Your task to perform on an android device: Clear the cart on costco.com. Search for "sony triple a" on costco.com, select the first entry, add it to the cart, then select checkout. Image 0: 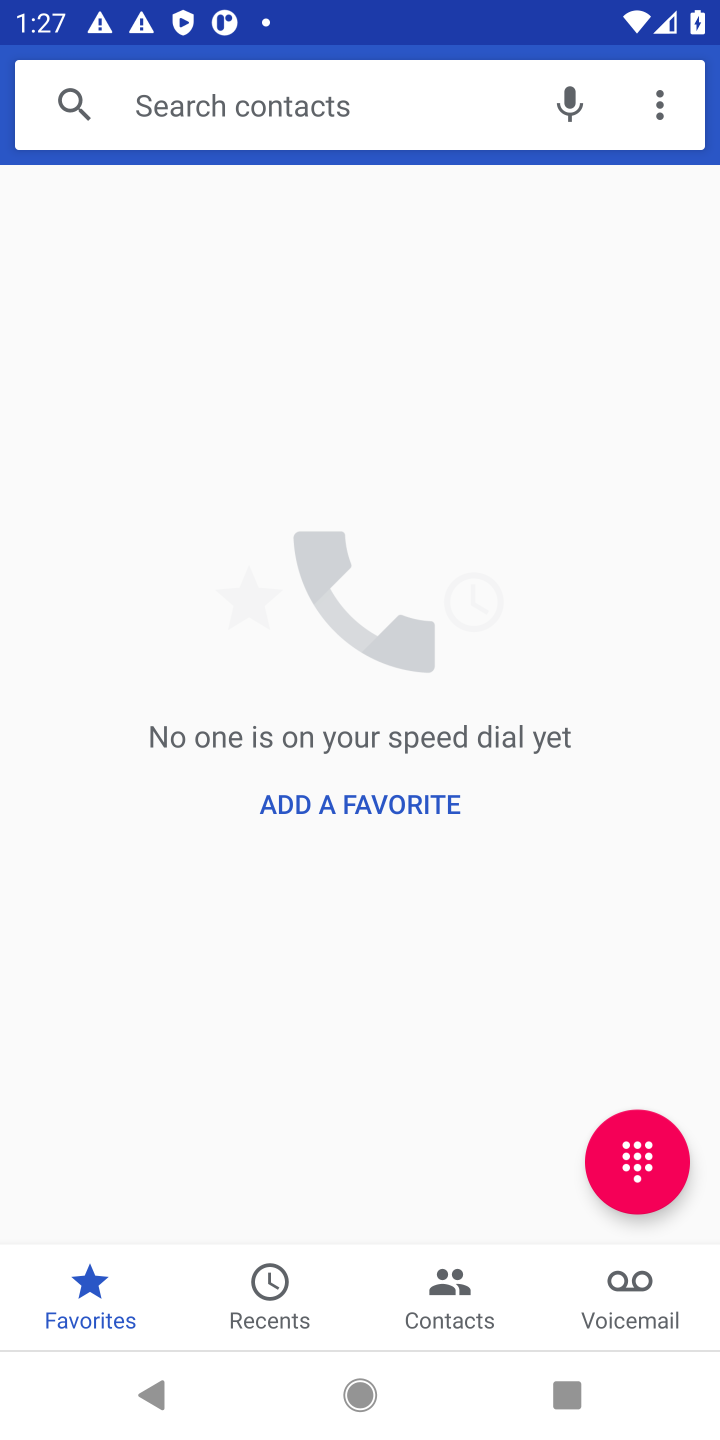
Step 0: press home button
Your task to perform on an android device: Clear the cart on costco.com. Search for "sony triple a" on costco.com, select the first entry, add it to the cart, then select checkout. Image 1: 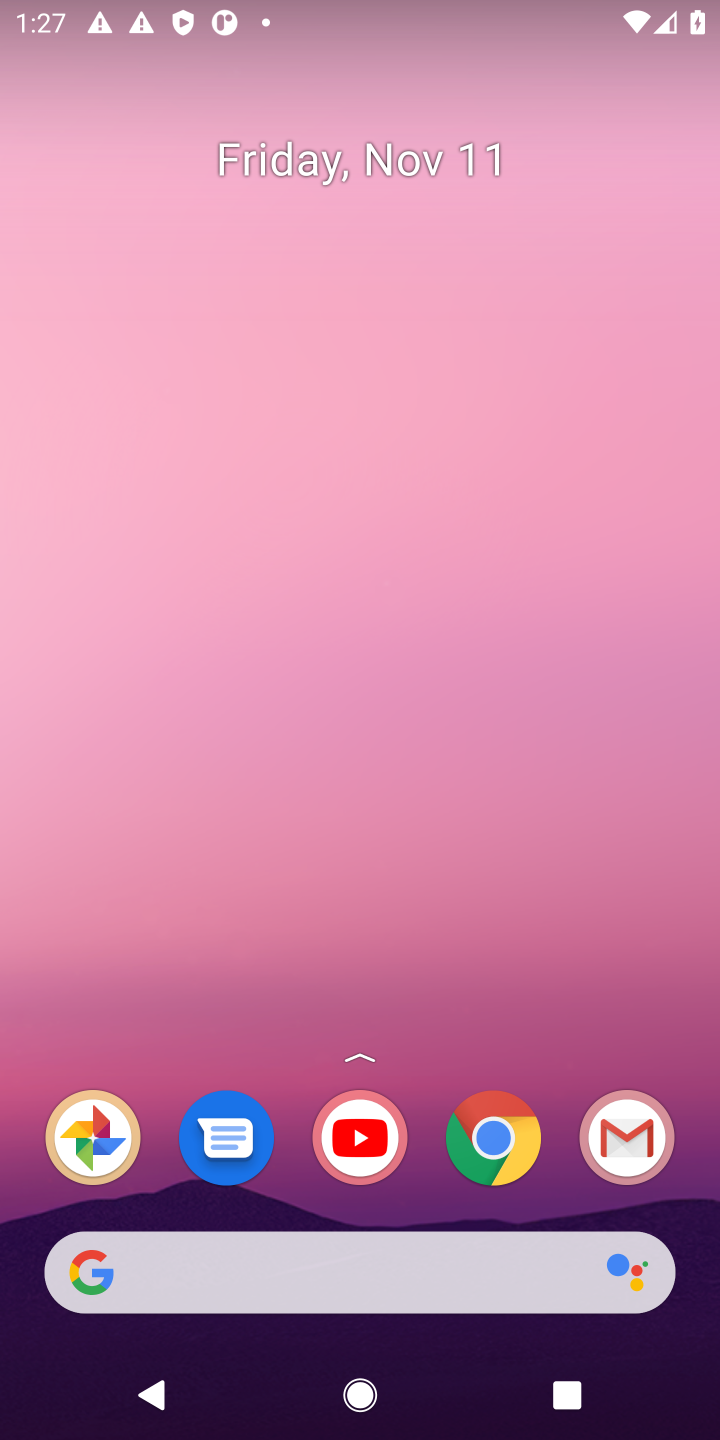
Step 1: click (491, 1143)
Your task to perform on an android device: Clear the cart on costco.com. Search for "sony triple a" on costco.com, select the first entry, add it to the cart, then select checkout. Image 2: 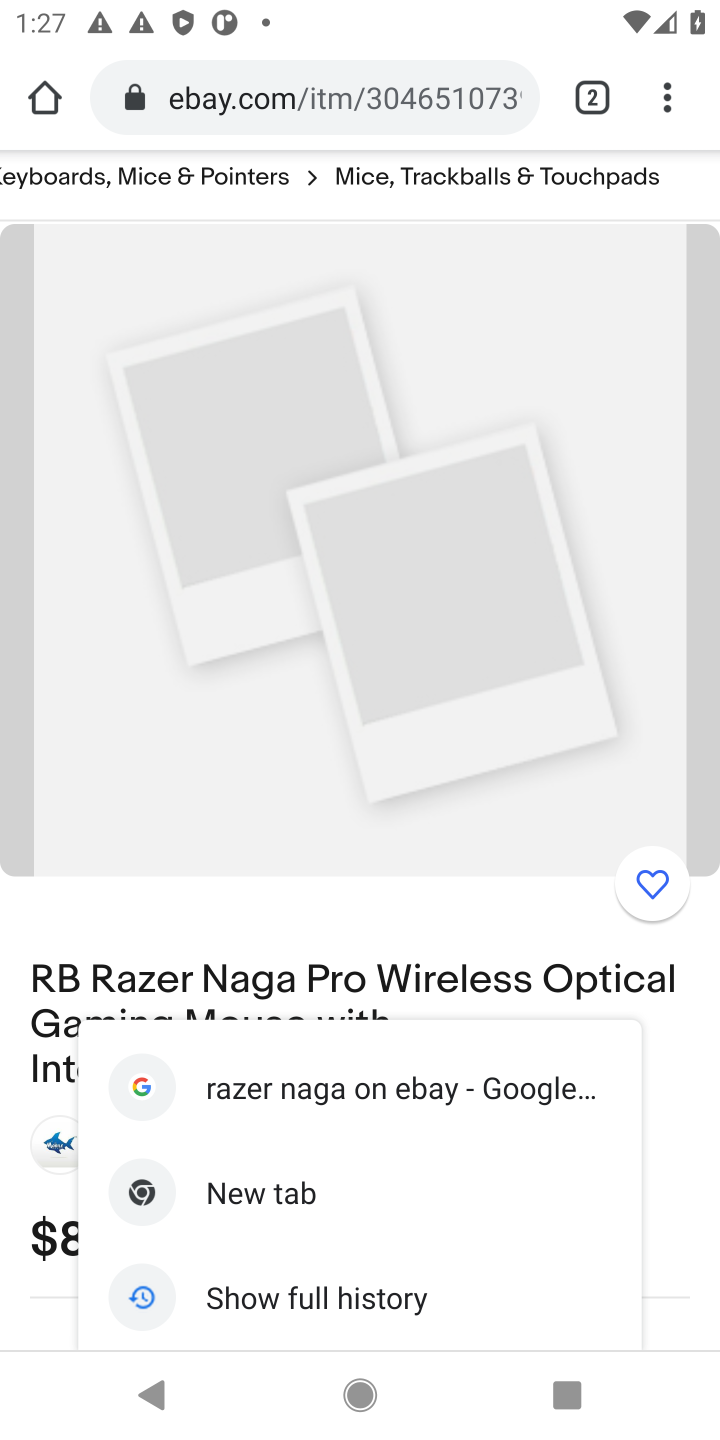
Step 2: click (590, 96)
Your task to perform on an android device: Clear the cart on costco.com. Search for "sony triple a" on costco.com, select the first entry, add it to the cart, then select checkout. Image 3: 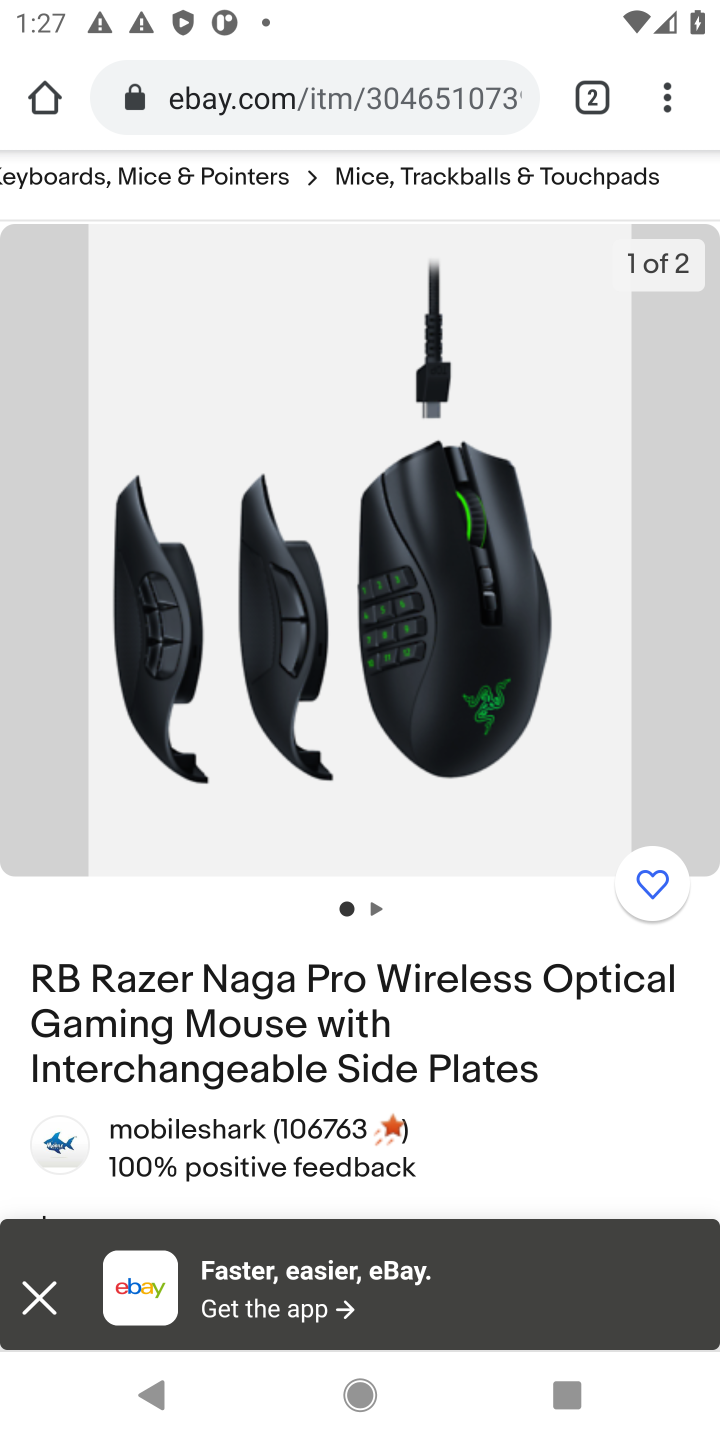
Step 3: click (602, 93)
Your task to perform on an android device: Clear the cart on costco.com. Search for "sony triple a" on costco.com, select the first entry, add it to the cart, then select checkout. Image 4: 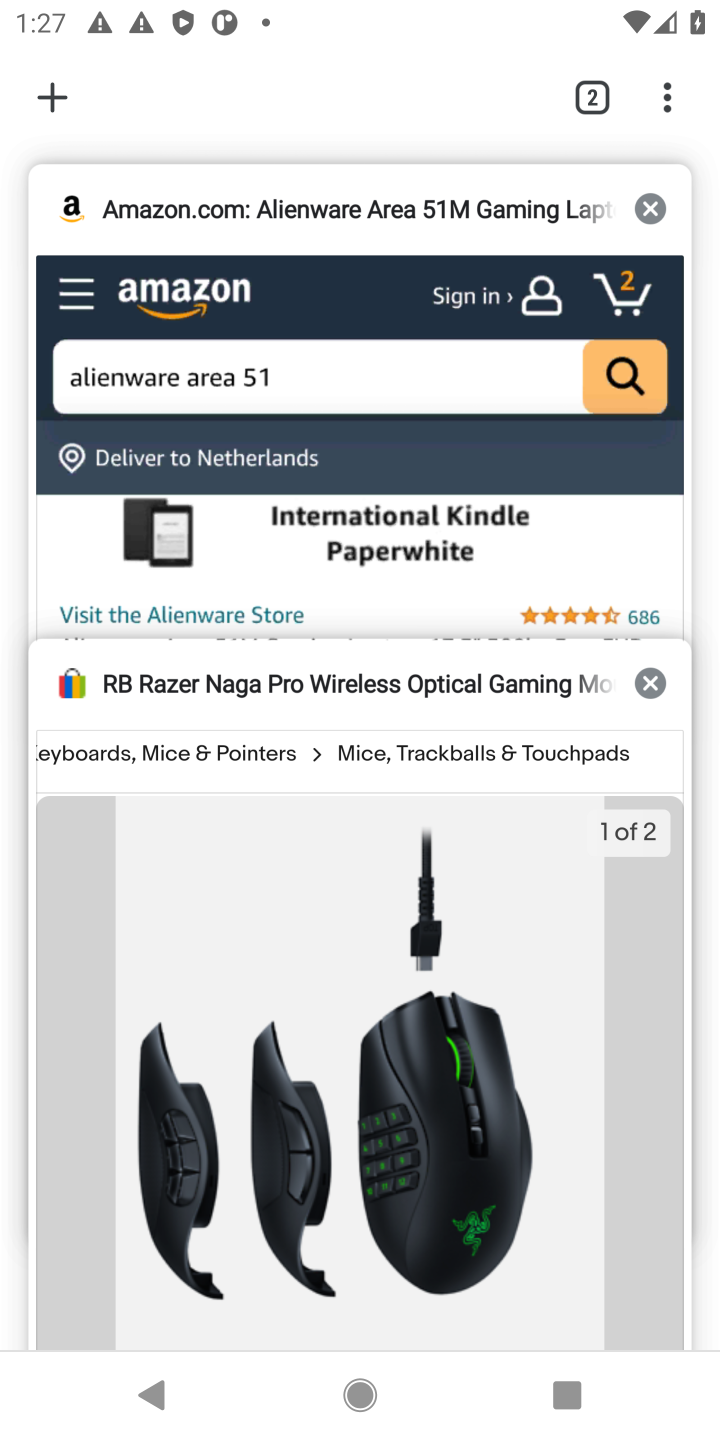
Step 4: click (49, 96)
Your task to perform on an android device: Clear the cart on costco.com. Search for "sony triple a" on costco.com, select the first entry, add it to the cart, then select checkout. Image 5: 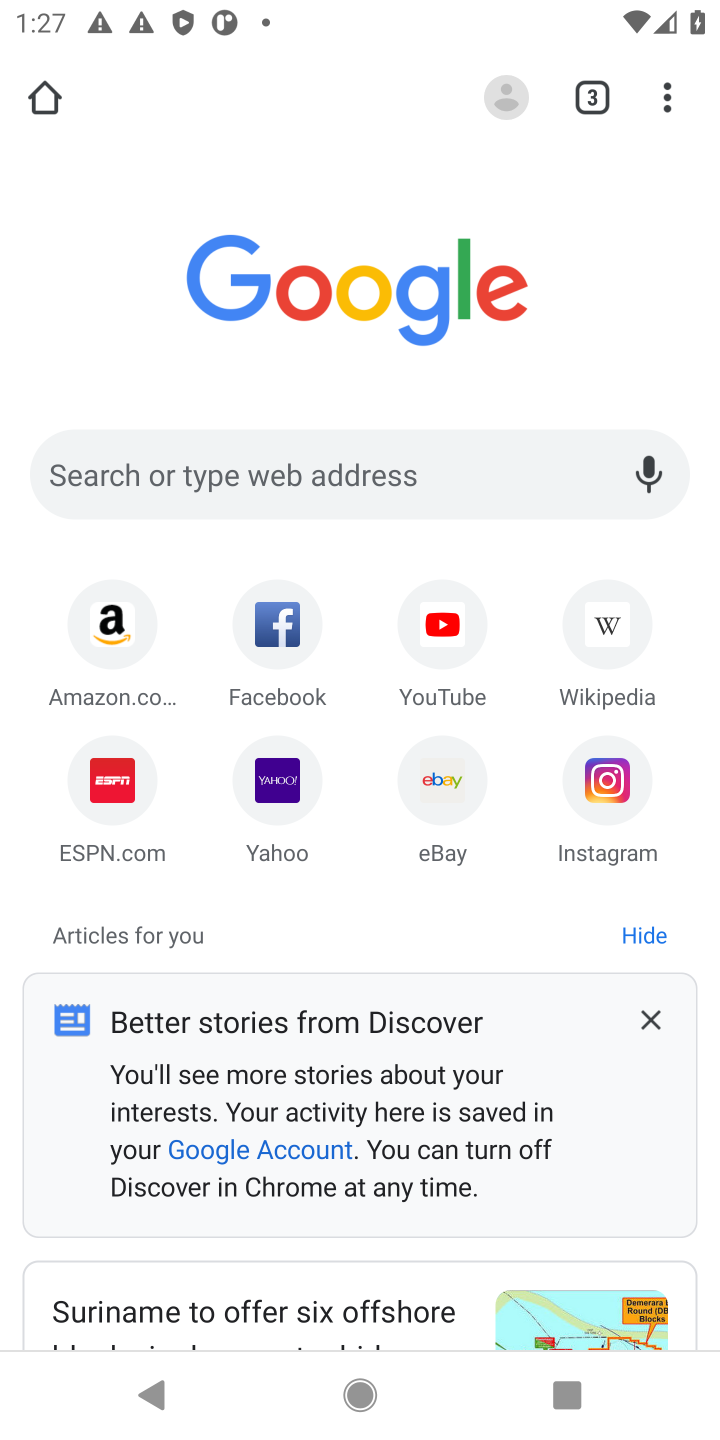
Step 5: click (386, 457)
Your task to perform on an android device: Clear the cart on costco.com. Search for "sony triple a" on costco.com, select the first entry, add it to the cart, then select checkout. Image 6: 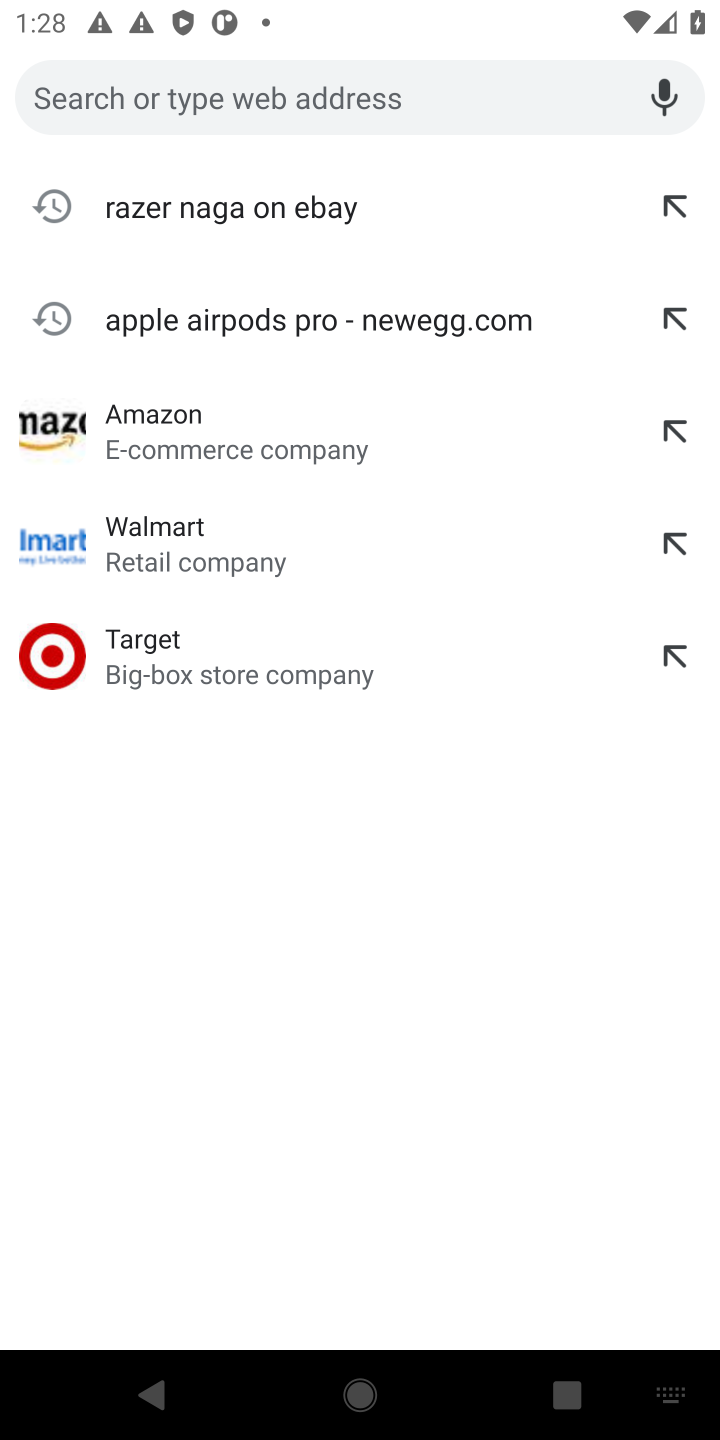
Step 6: type "sony triple a" on costco"
Your task to perform on an android device: Clear the cart on costco.com. Search for "sony triple a" on costco.com, select the first entry, add it to the cart, then select checkout. Image 7: 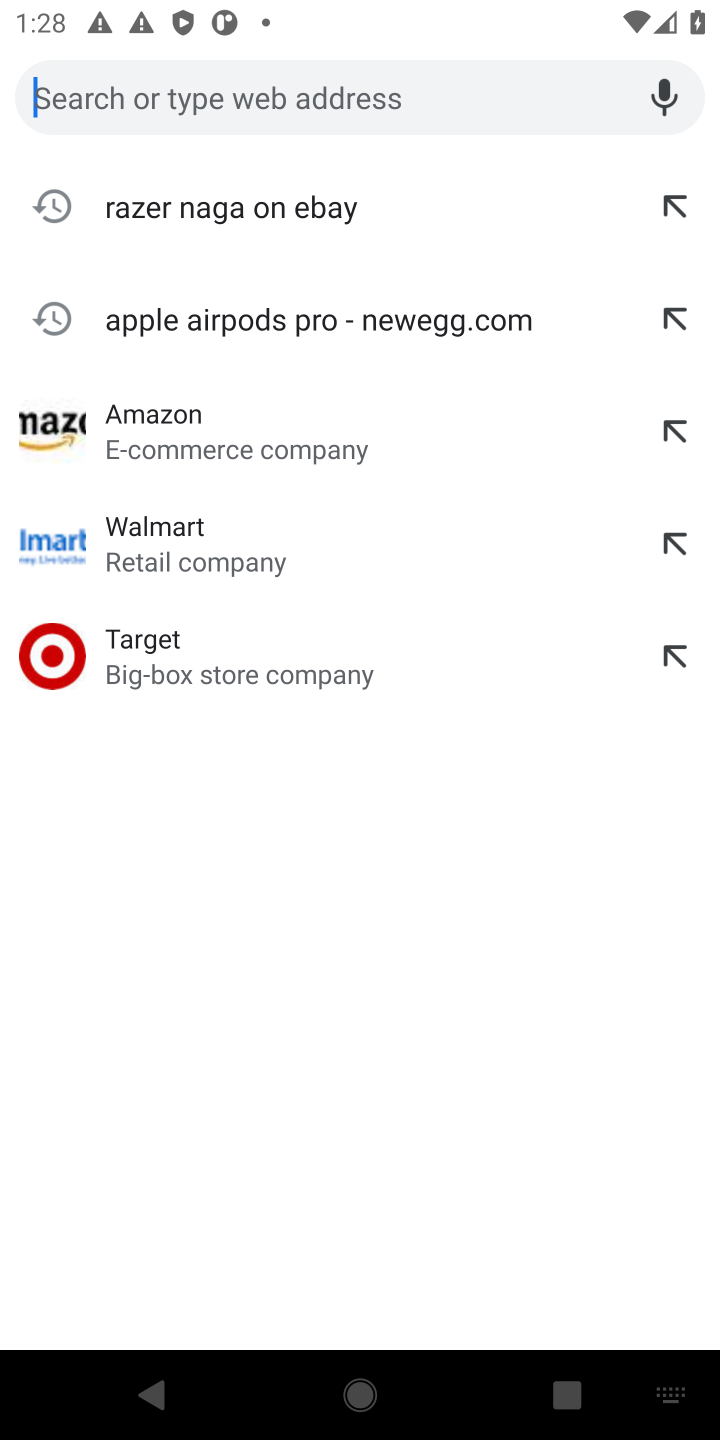
Step 7: type "sony triple a on costco"
Your task to perform on an android device: Clear the cart on costco.com. Search for "sony triple a" on costco.com, select the first entry, add it to the cart, then select checkout. Image 8: 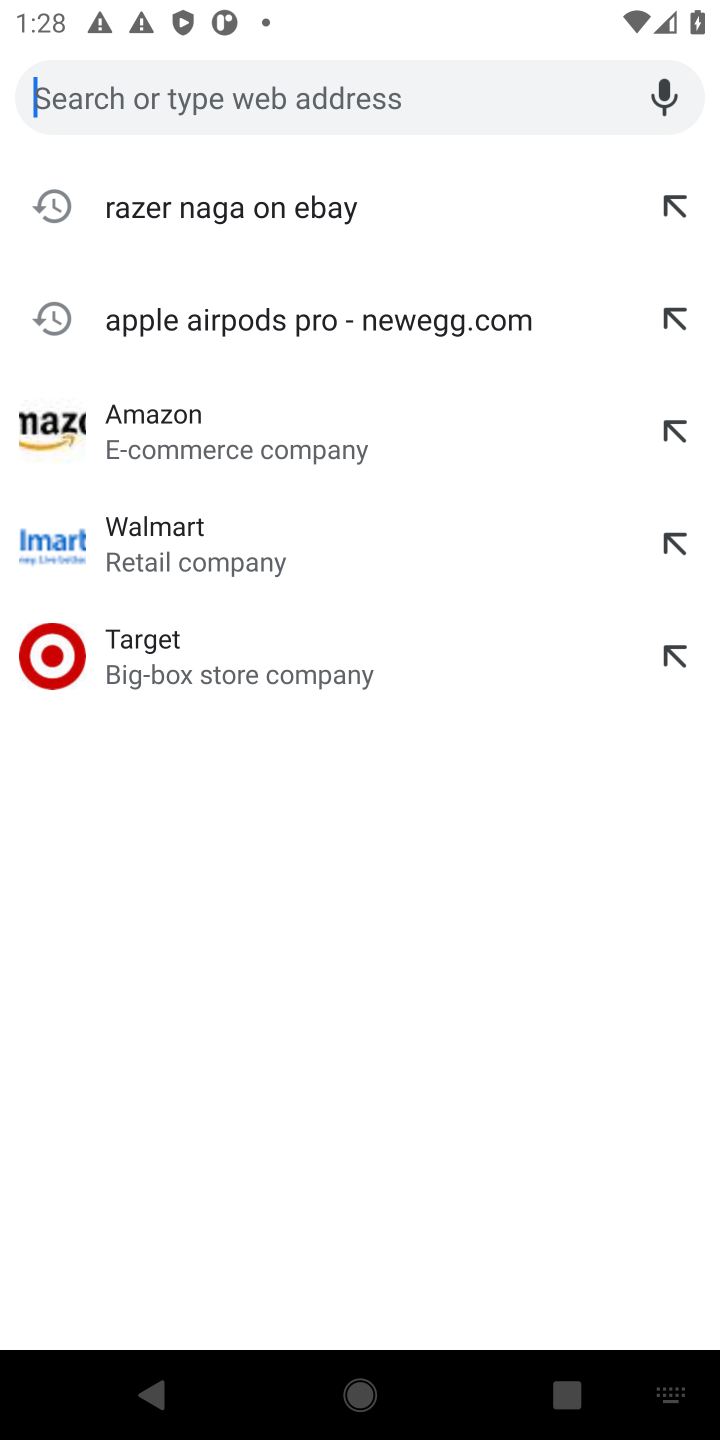
Step 8: click (113, 92)
Your task to perform on an android device: Clear the cart on costco.com. Search for "sony triple a" on costco.com, select the first entry, add it to the cart, then select checkout. Image 9: 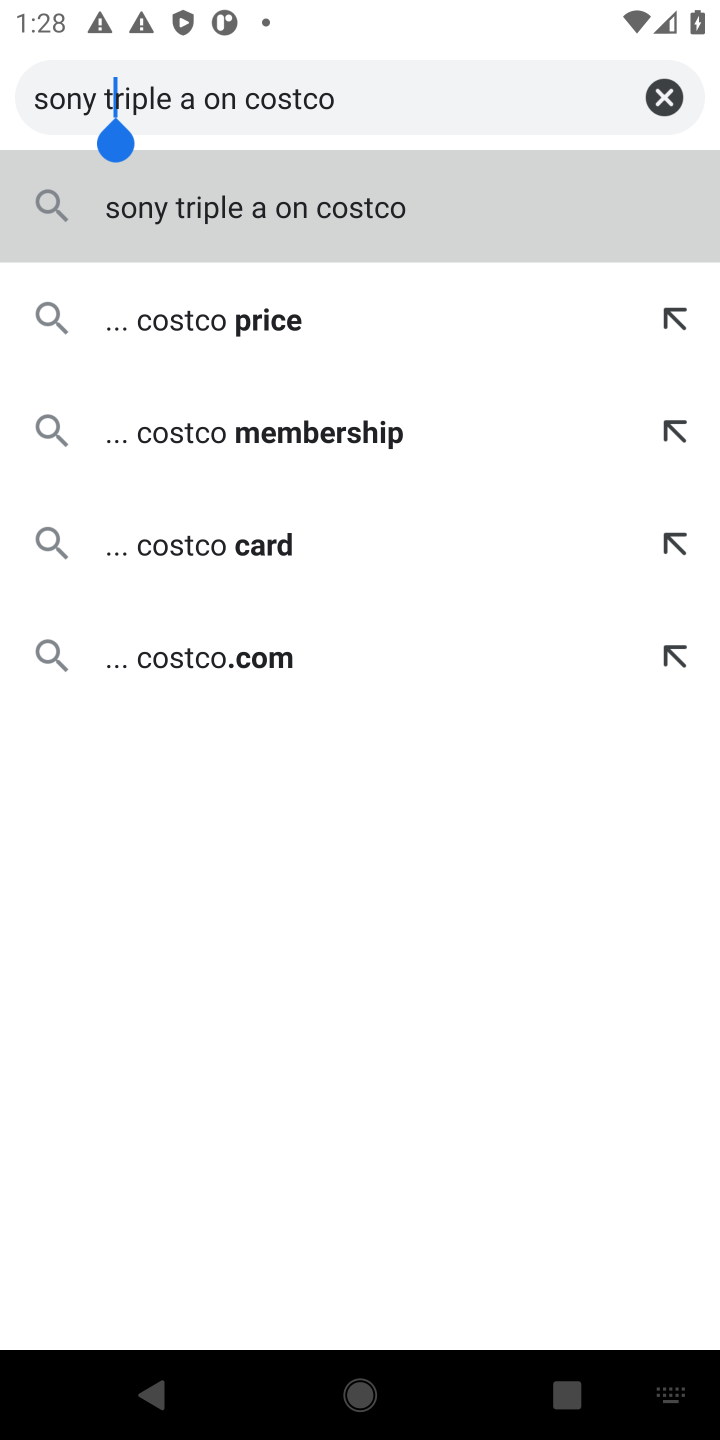
Step 9: type "sony triple a on costco"
Your task to perform on an android device: Clear the cart on costco.com. Search for "sony triple a" on costco.com, select the first entry, add it to the cart, then select checkout. Image 10: 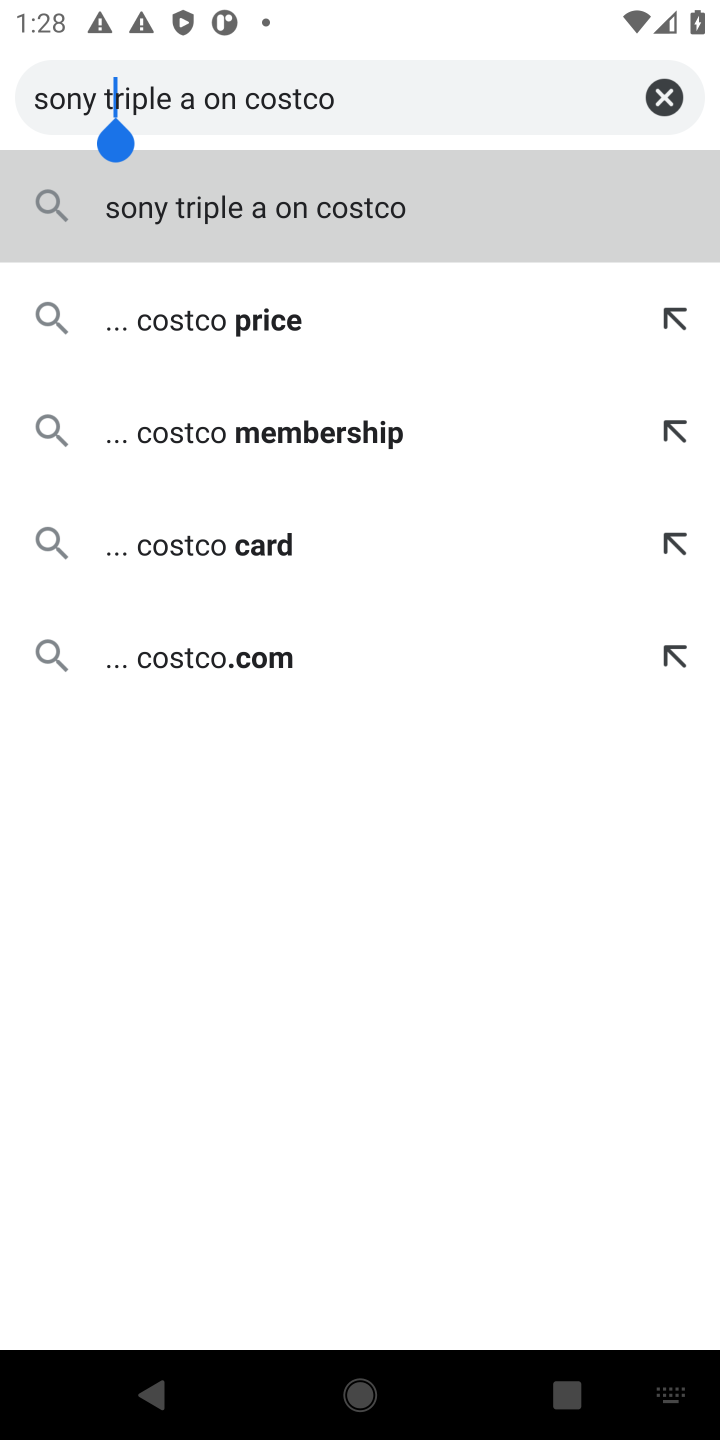
Step 10: click (367, 189)
Your task to perform on an android device: Clear the cart on costco.com. Search for "sony triple a" on costco.com, select the first entry, add it to the cart, then select checkout. Image 11: 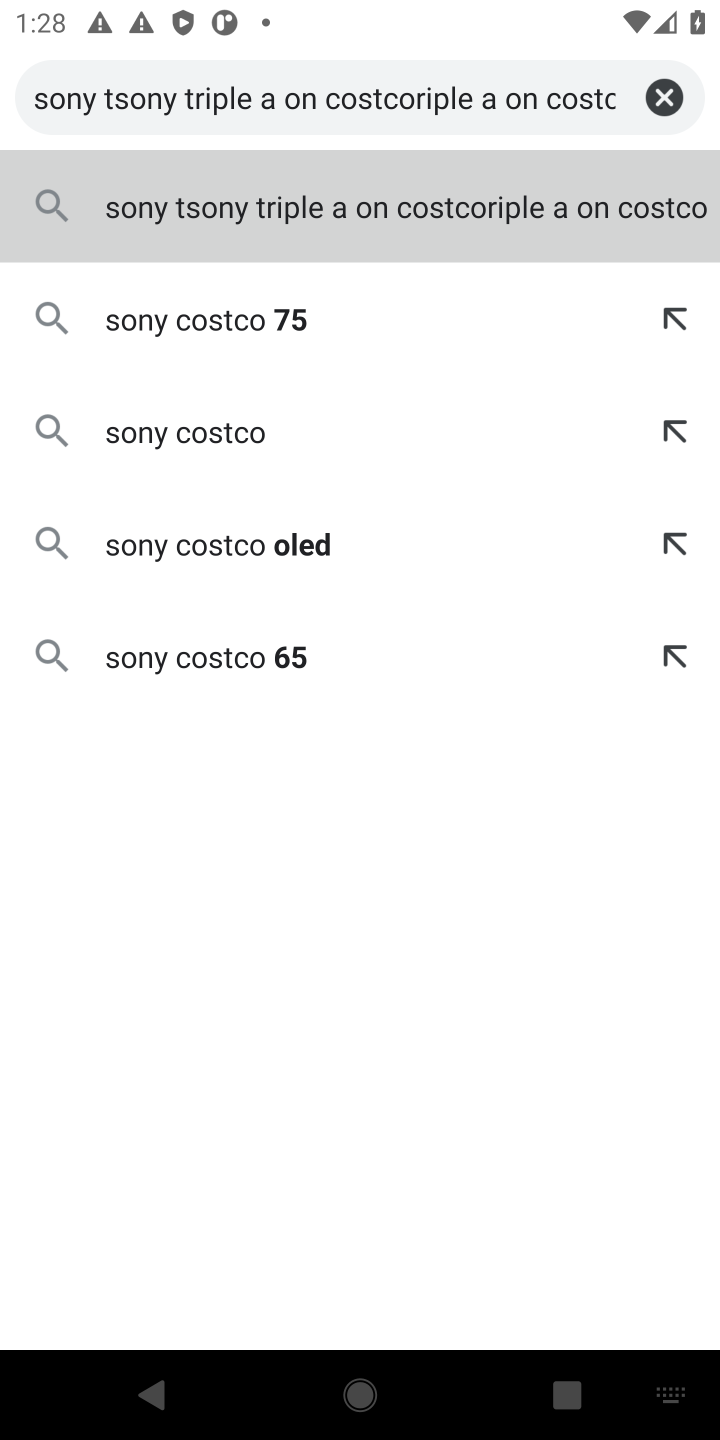
Step 11: click (324, 214)
Your task to perform on an android device: Clear the cart on costco.com. Search for "sony triple a" on costco.com, select the first entry, add it to the cart, then select checkout. Image 12: 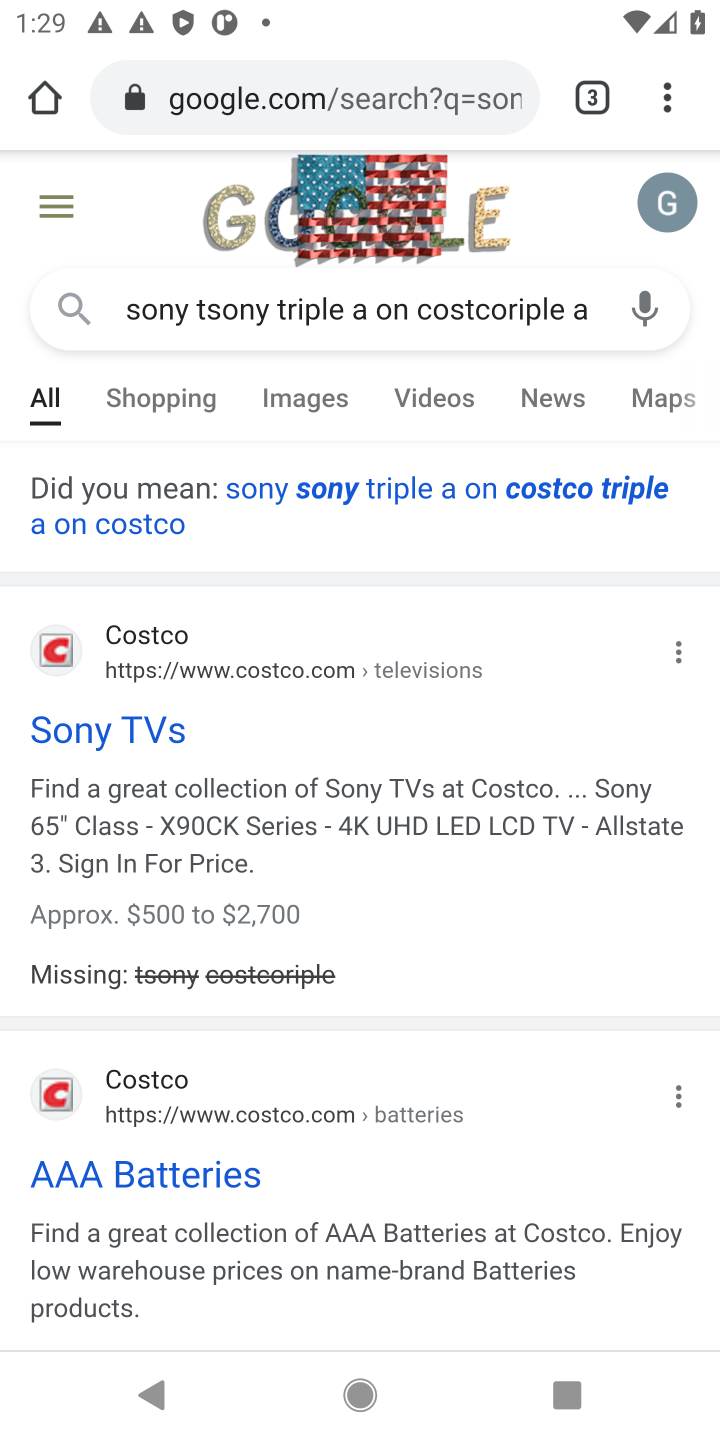
Step 12: drag from (355, 1016) to (389, 470)
Your task to perform on an android device: Clear the cart on costco.com. Search for "sony triple a" on costco.com, select the first entry, add it to the cart, then select checkout. Image 13: 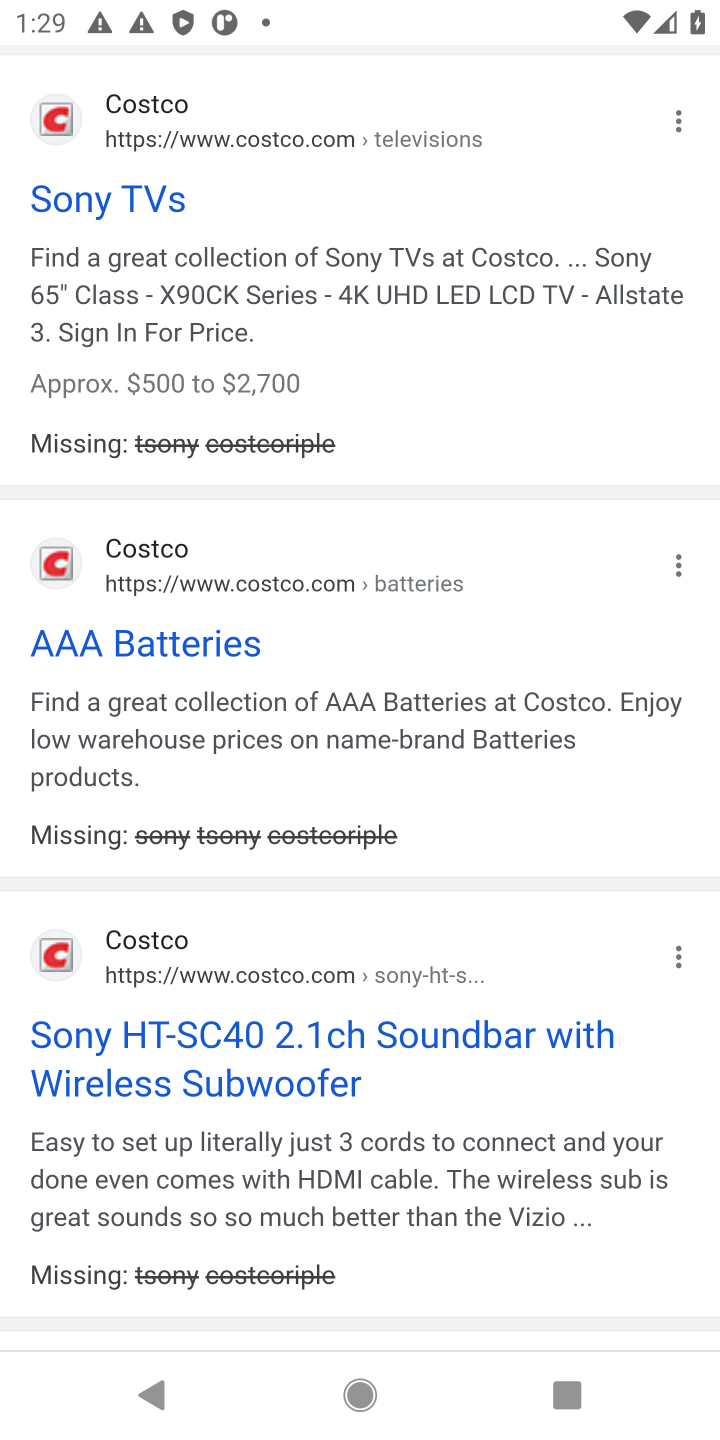
Step 13: drag from (384, 1113) to (465, 498)
Your task to perform on an android device: Clear the cart on costco.com. Search for "sony triple a" on costco.com, select the first entry, add it to the cart, then select checkout. Image 14: 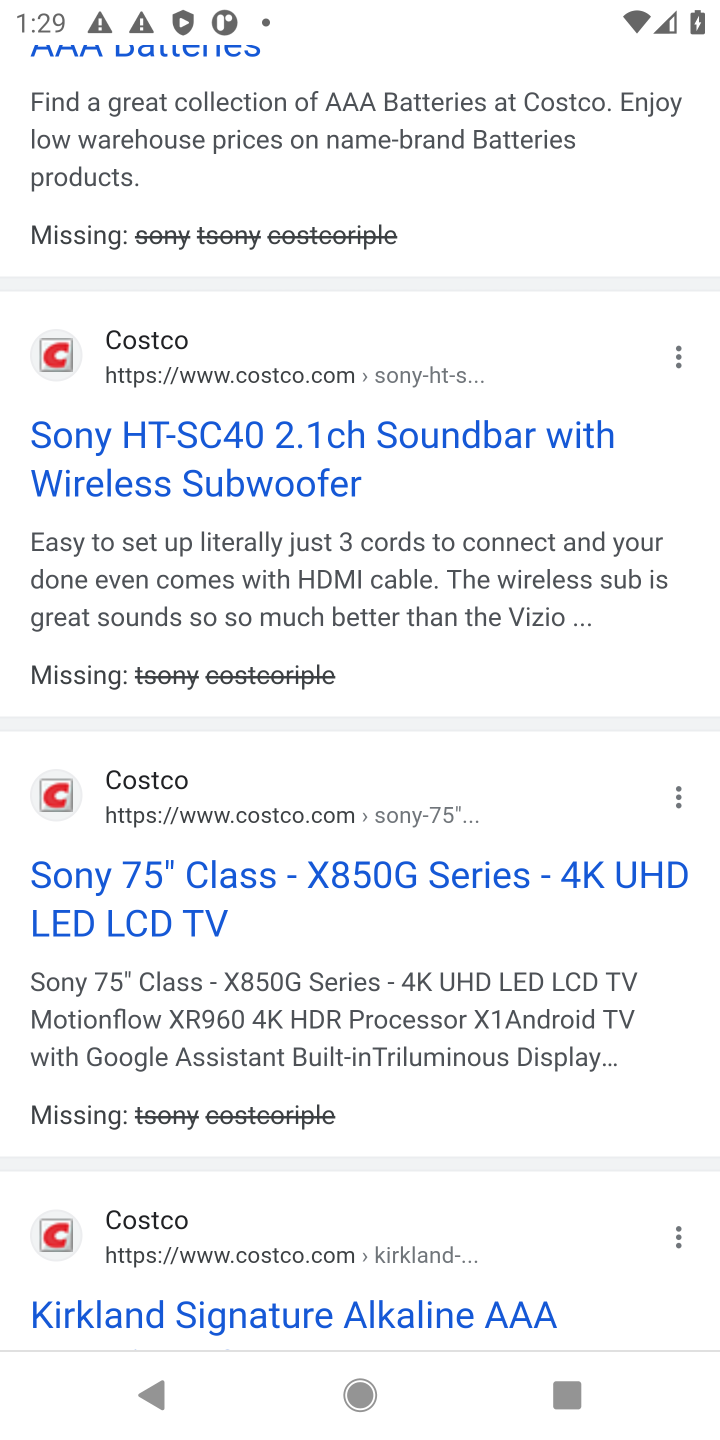
Step 14: drag from (467, 1151) to (576, 400)
Your task to perform on an android device: Clear the cart on costco.com. Search for "sony triple a" on costco.com, select the first entry, add it to the cart, then select checkout. Image 15: 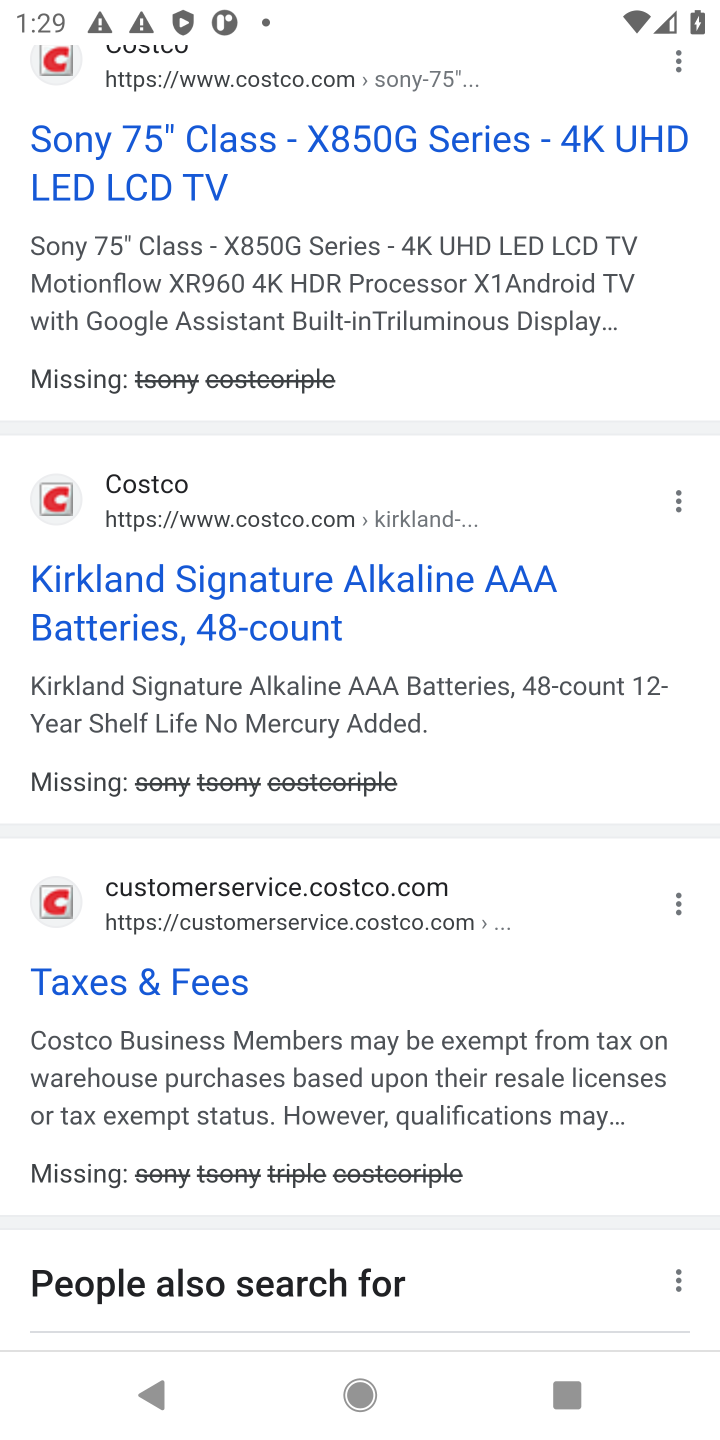
Step 15: drag from (355, 1194) to (415, 466)
Your task to perform on an android device: Clear the cart on costco.com. Search for "sony triple a" on costco.com, select the first entry, add it to the cart, then select checkout. Image 16: 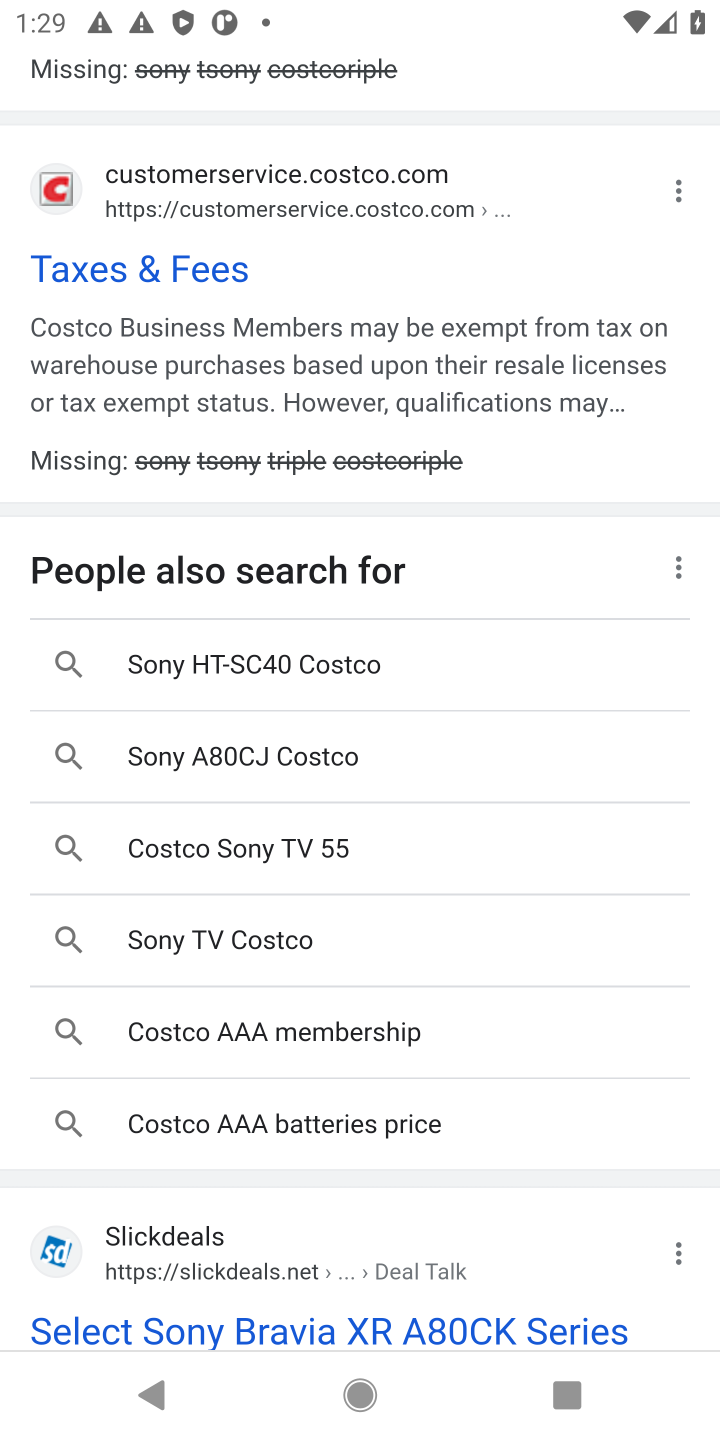
Step 16: drag from (465, 394) to (468, 1116)
Your task to perform on an android device: Clear the cart on costco.com. Search for "sony triple a" on costco.com, select the first entry, add it to the cart, then select checkout. Image 17: 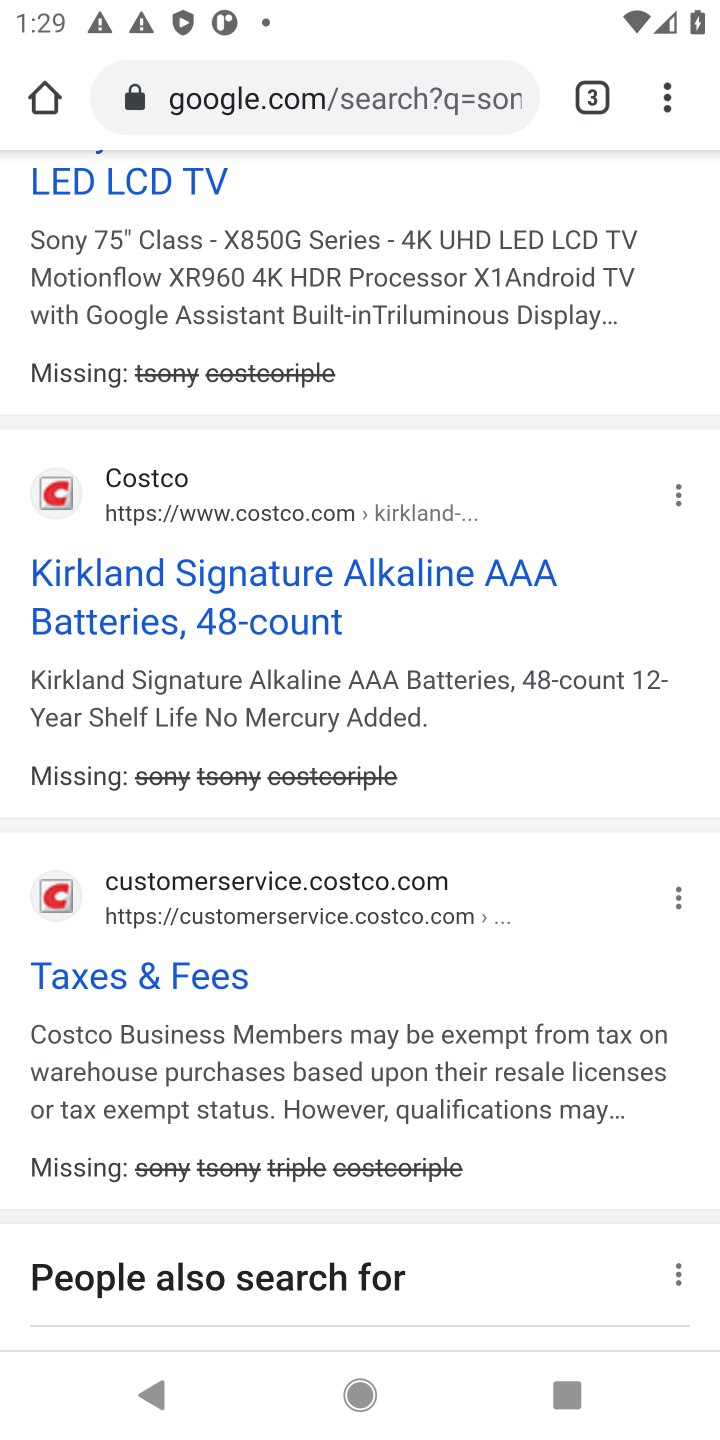
Step 17: drag from (577, 337) to (522, 798)
Your task to perform on an android device: Clear the cart on costco.com. Search for "sony triple a" on costco.com, select the first entry, add it to the cart, then select checkout. Image 18: 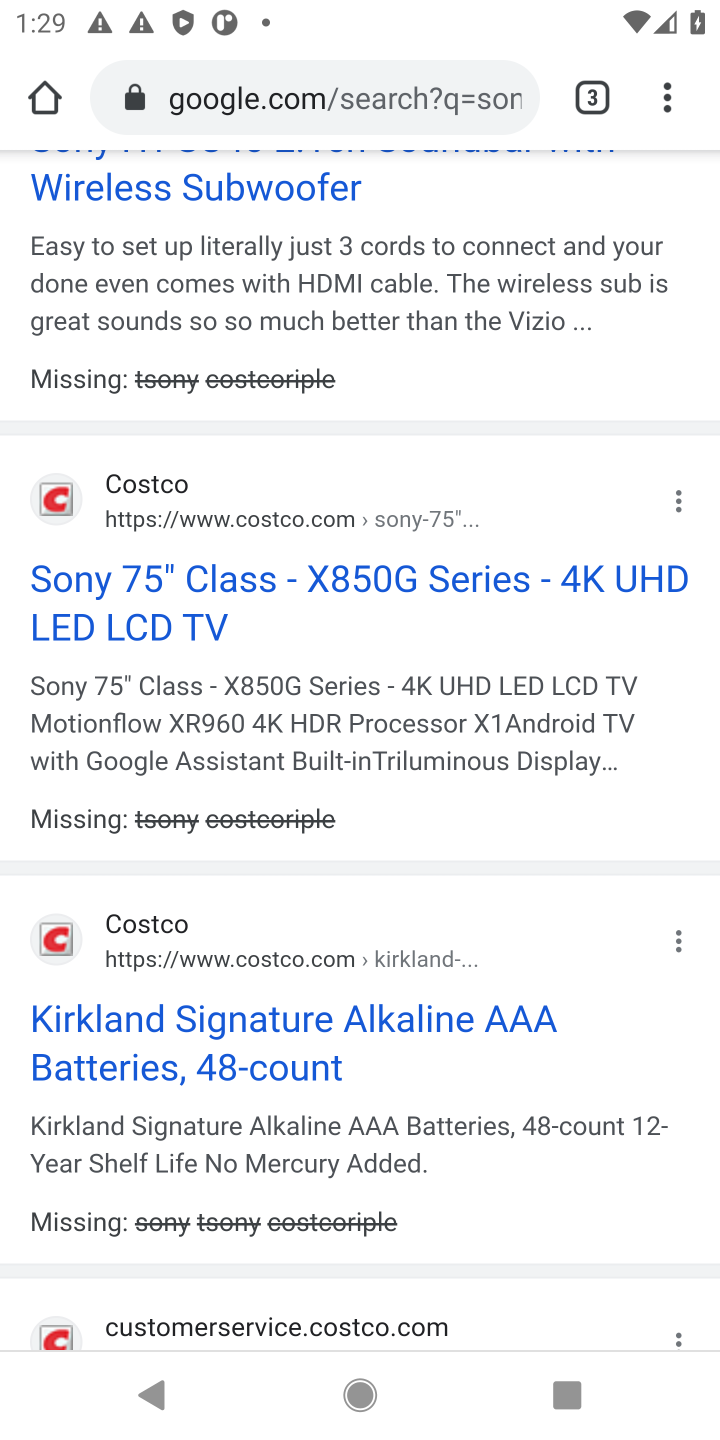
Step 18: drag from (418, 391) to (387, 1015)
Your task to perform on an android device: Clear the cart on costco.com. Search for "sony triple a" on costco.com, select the first entry, add it to the cart, then select checkout. Image 19: 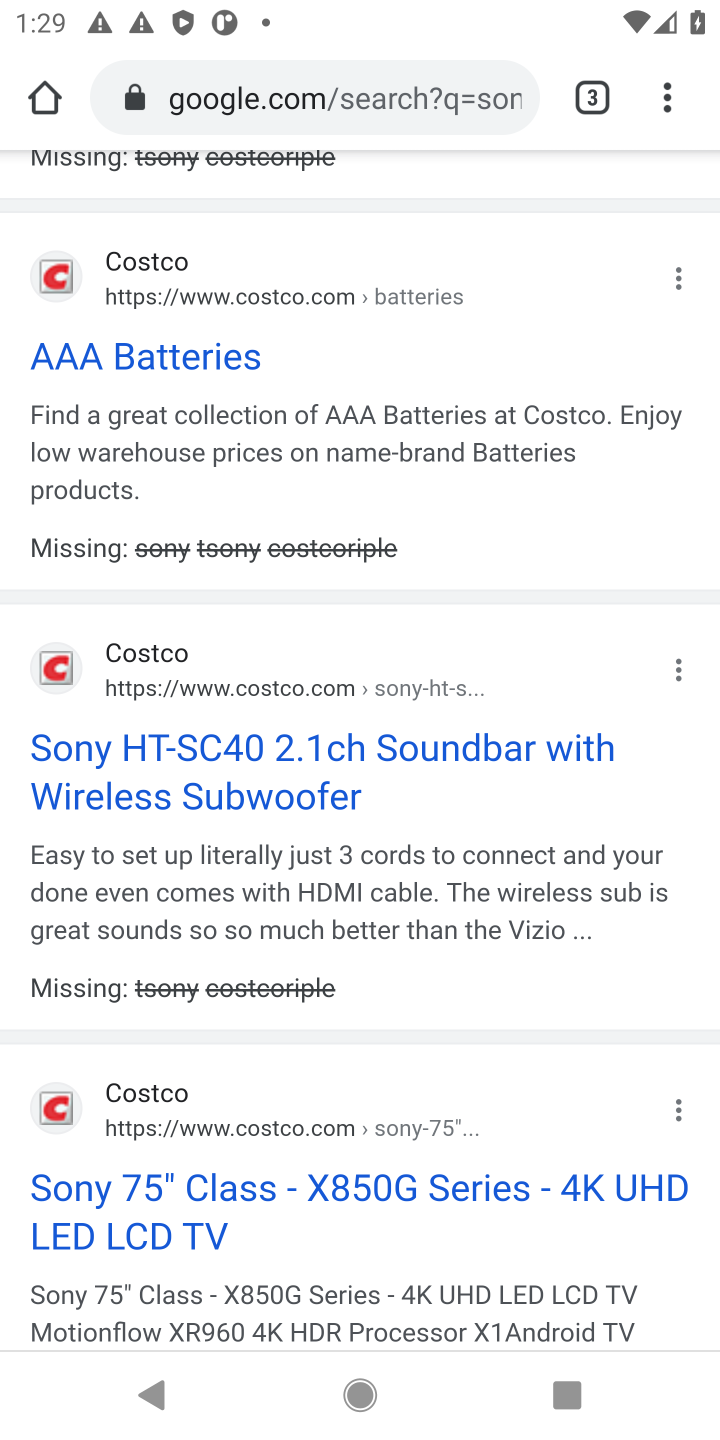
Step 19: click (201, 351)
Your task to perform on an android device: Clear the cart on costco.com. Search for "sony triple a" on costco.com, select the first entry, add it to the cart, then select checkout. Image 20: 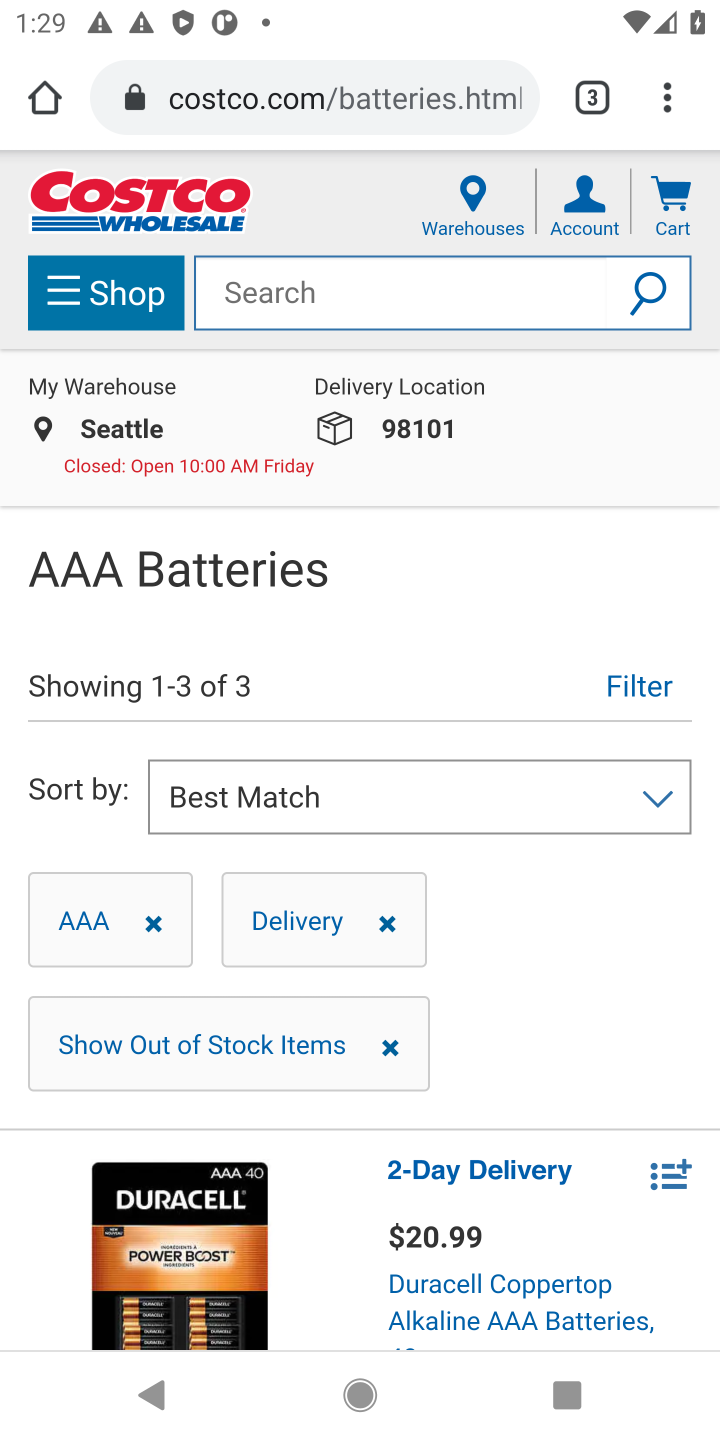
Step 20: drag from (508, 1148) to (611, 222)
Your task to perform on an android device: Clear the cart on costco.com. Search for "sony triple a" on costco.com, select the first entry, add it to the cart, then select checkout. Image 21: 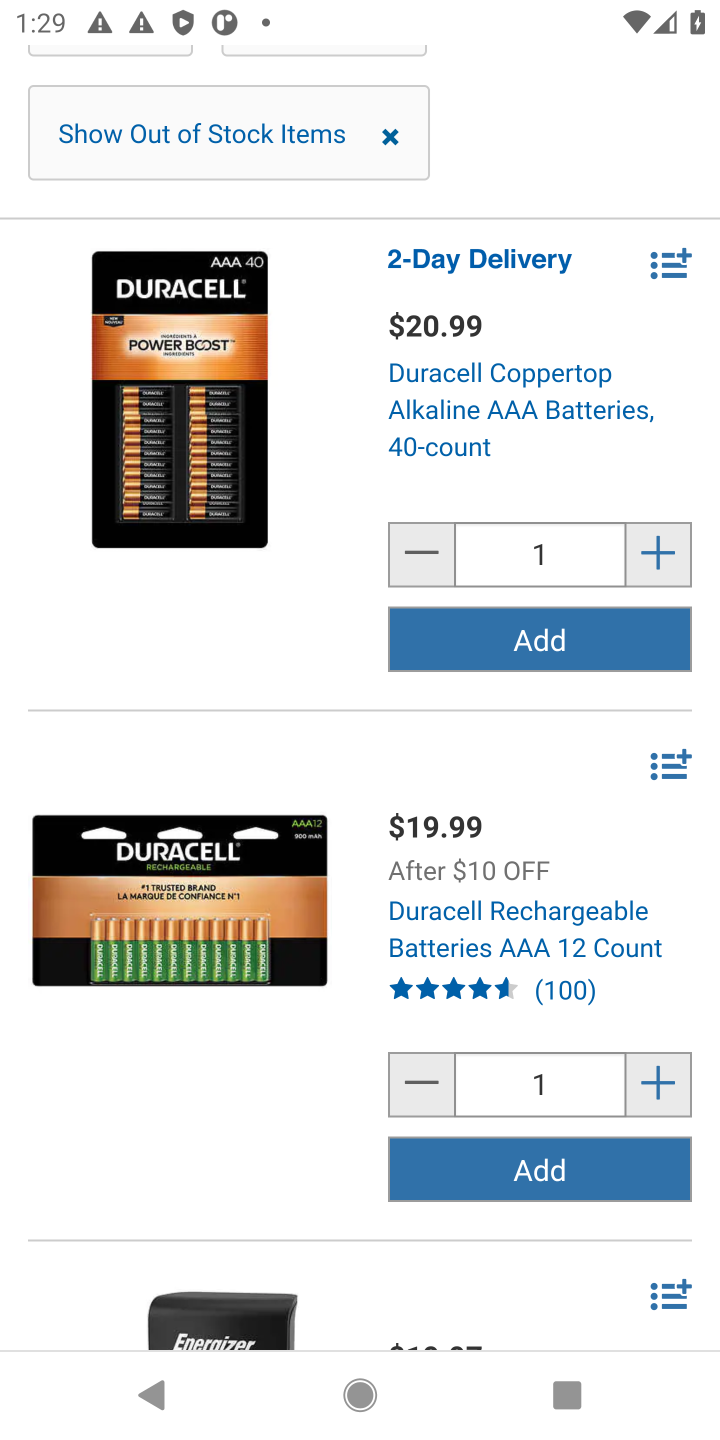
Step 21: drag from (250, 1122) to (436, 385)
Your task to perform on an android device: Clear the cart on costco.com. Search for "sony triple a" on costco.com, select the first entry, add it to the cart, then select checkout. Image 22: 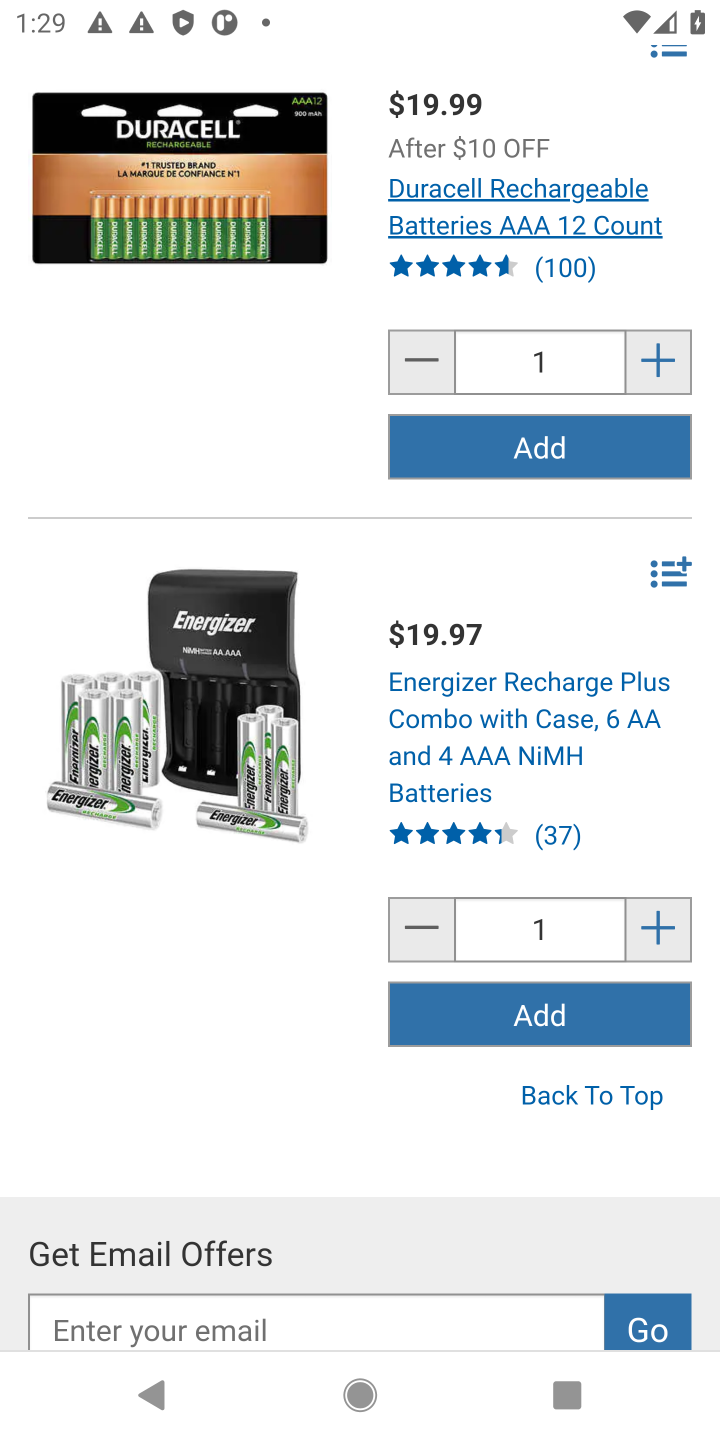
Step 22: drag from (242, 1175) to (513, 178)
Your task to perform on an android device: Clear the cart on costco.com. Search for "sony triple a" on costco.com, select the first entry, add it to the cart, then select checkout. Image 23: 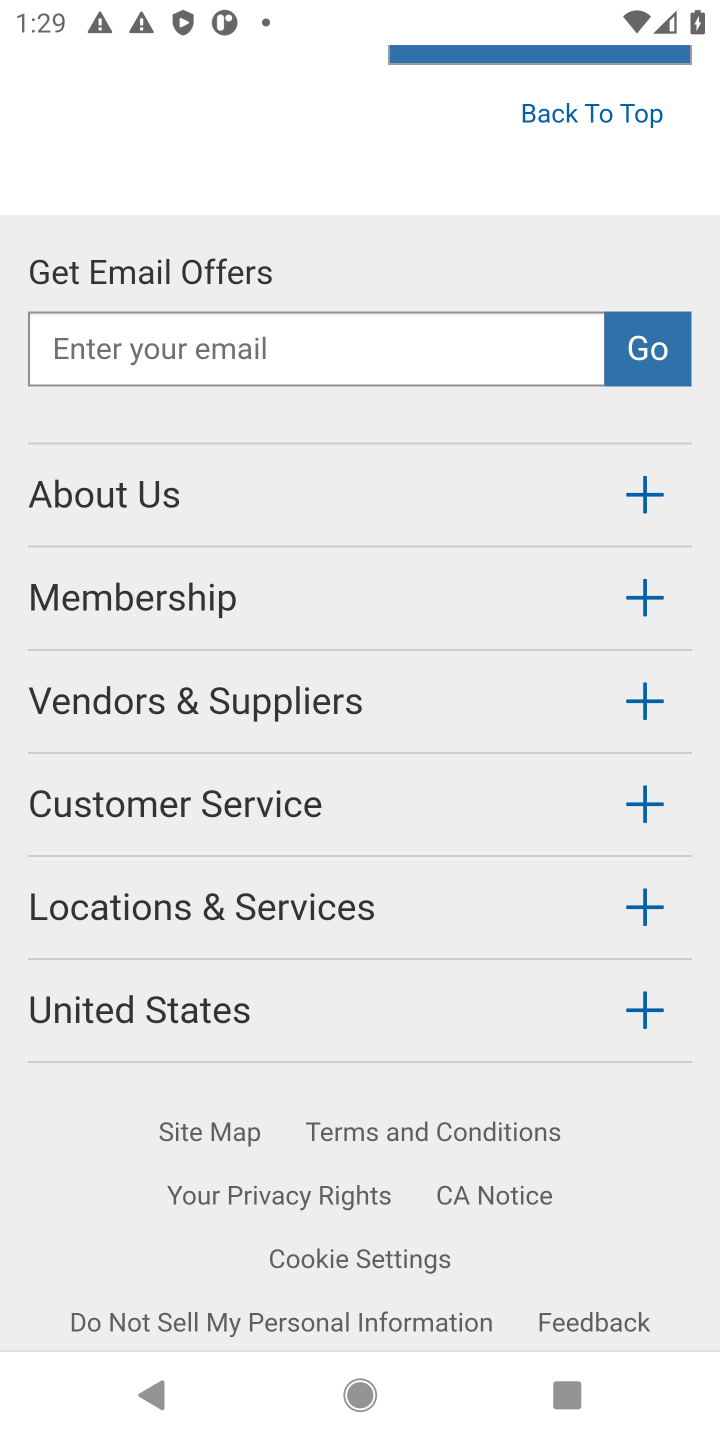
Step 23: drag from (418, 291) to (429, 1211)
Your task to perform on an android device: Clear the cart on costco.com. Search for "sony triple a" on costco.com, select the first entry, add it to the cart, then select checkout. Image 24: 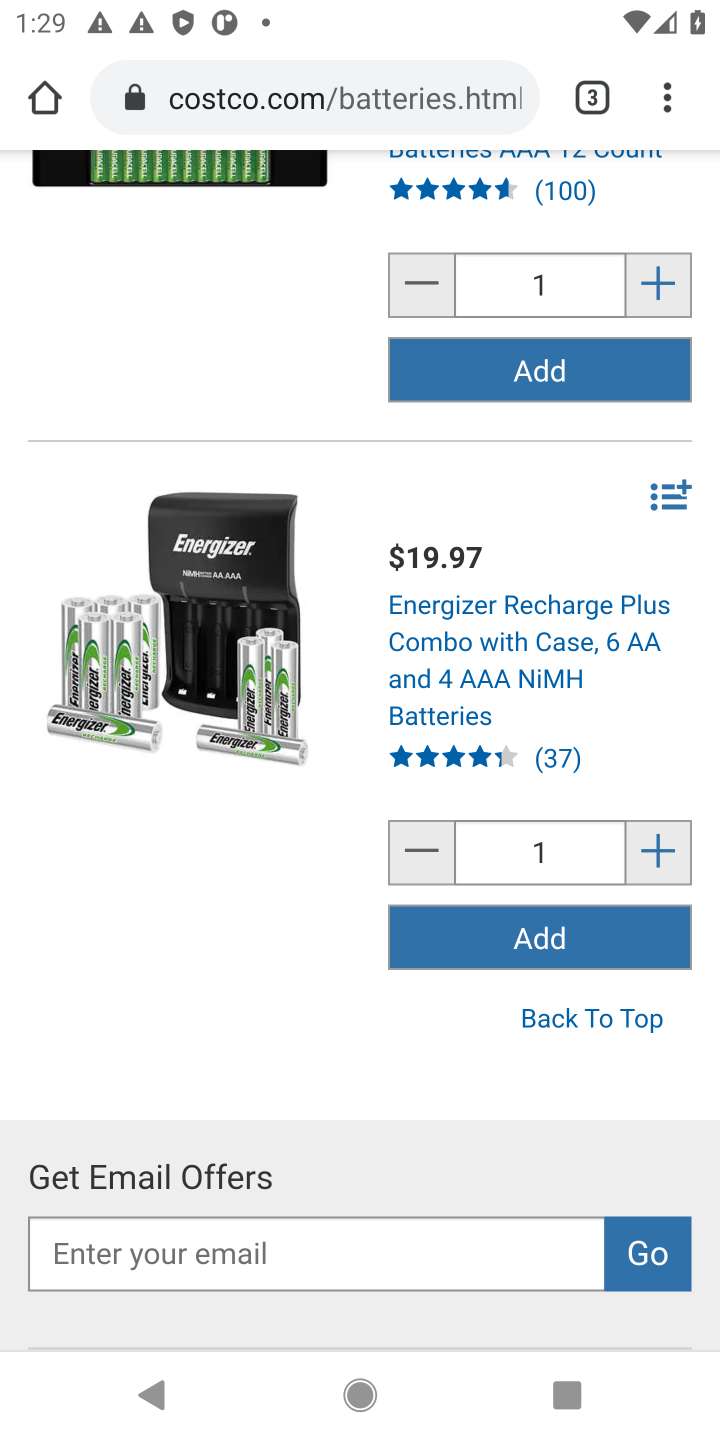
Step 24: drag from (310, 241) to (289, 1152)
Your task to perform on an android device: Clear the cart on costco.com. Search for "sony triple a" on costco.com, select the first entry, add it to the cart, then select checkout. Image 25: 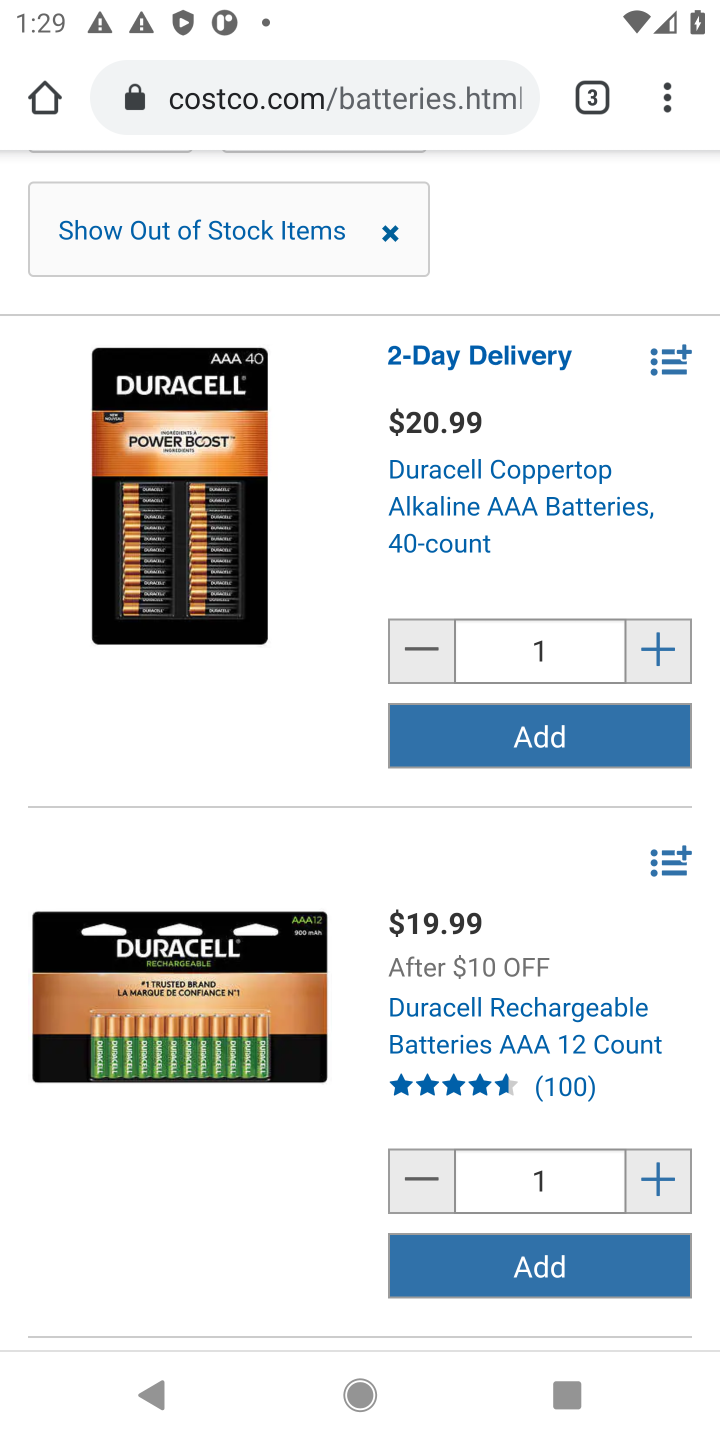
Step 25: drag from (334, 434) to (292, 1186)
Your task to perform on an android device: Clear the cart on costco.com. Search for "sony triple a" on costco.com, select the first entry, add it to the cart, then select checkout. Image 26: 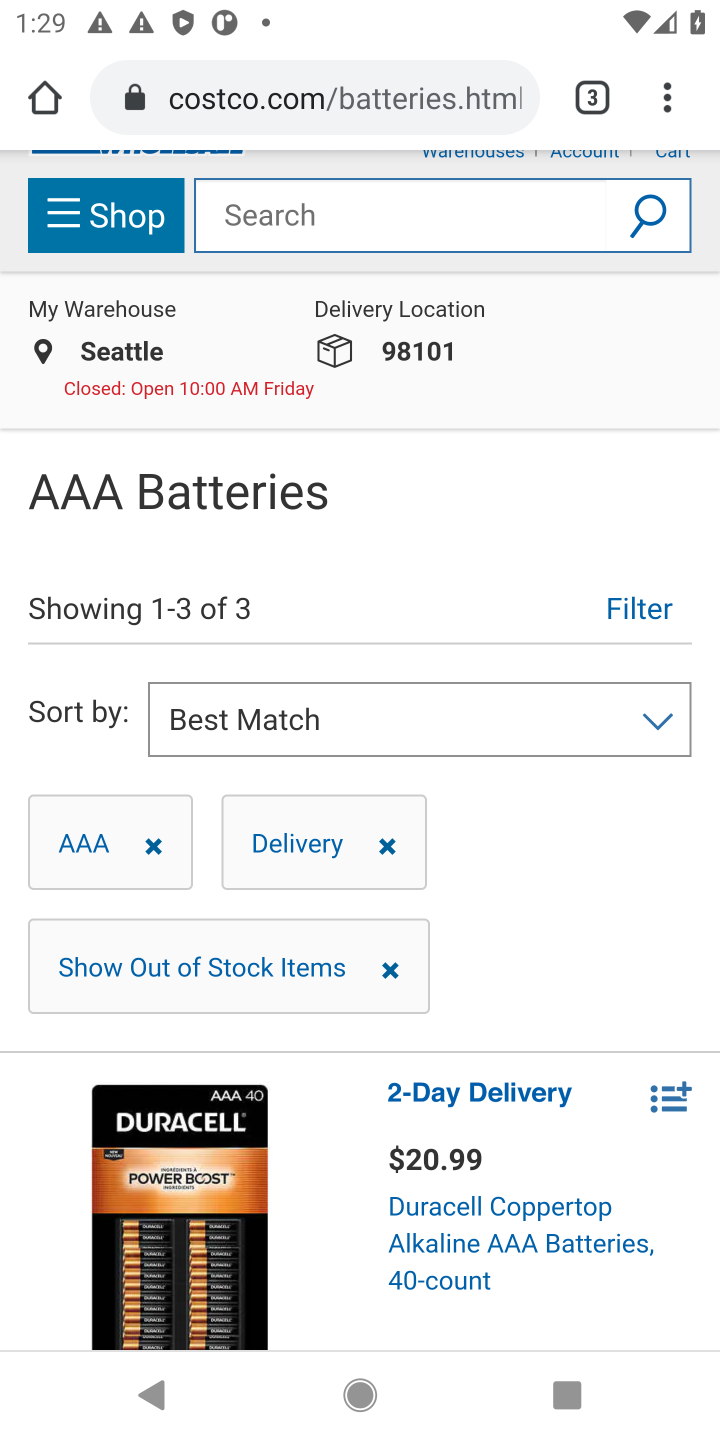
Step 26: click (350, 228)
Your task to perform on an android device: Clear the cart on costco.com. Search for "sony triple a" on costco.com, select the first entry, add it to the cart, then select checkout. Image 27: 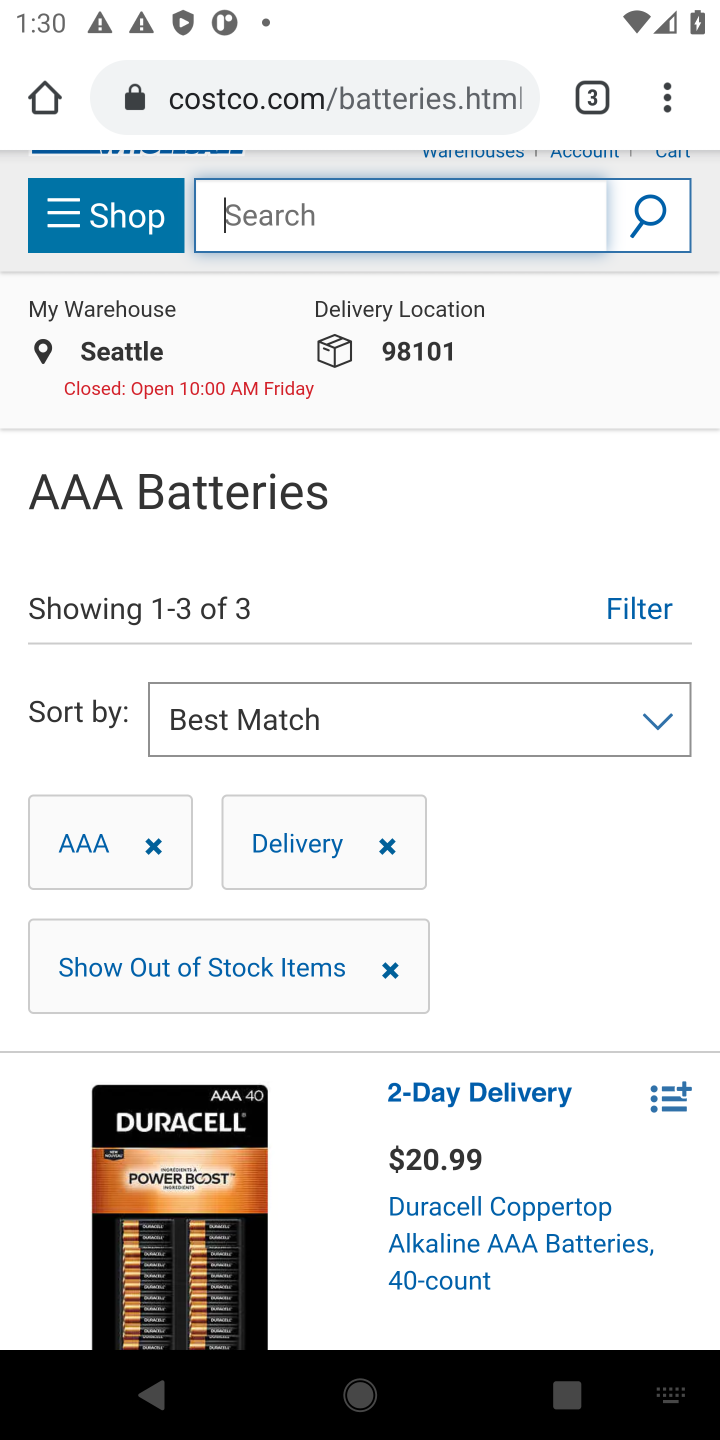
Step 27: type "sony triple a"
Your task to perform on an android device: Clear the cart on costco.com. Search for "sony triple a" on costco.com, select the first entry, add it to the cart, then select checkout. Image 28: 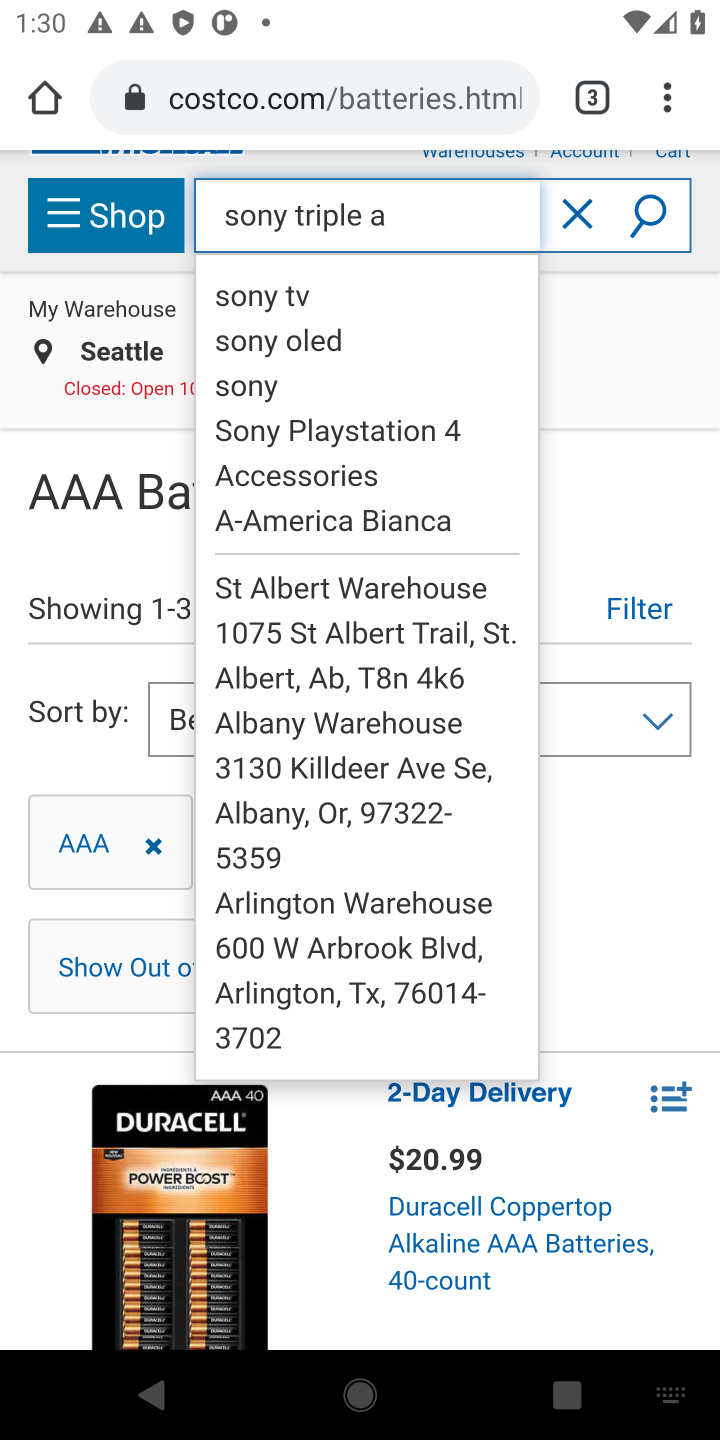
Step 28: click (647, 213)
Your task to perform on an android device: Clear the cart on costco.com. Search for "sony triple a" on costco.com, select the first entry, add it to the cart, then select checkout. Image 29: 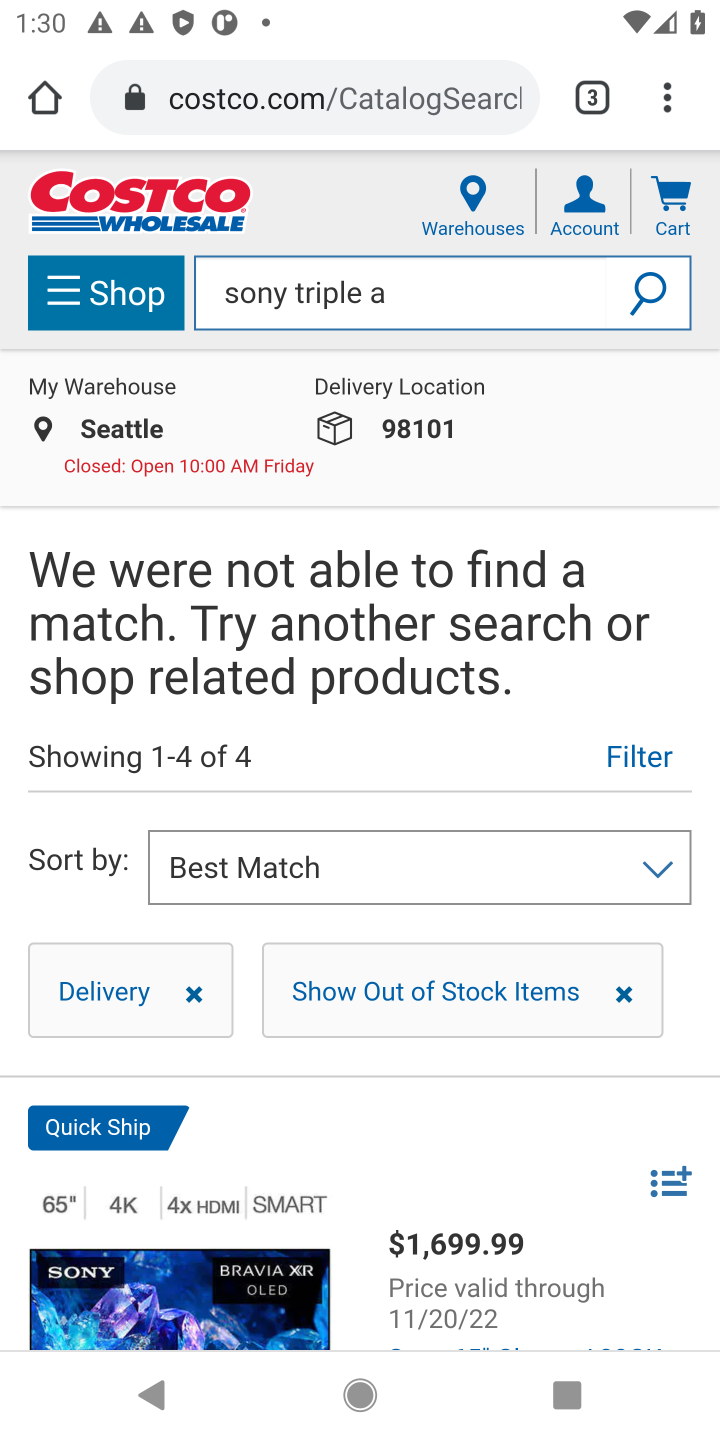
Step 29: task complete